Your task to perform on an android device: Open calendar and show me the third week of next month Image 0: 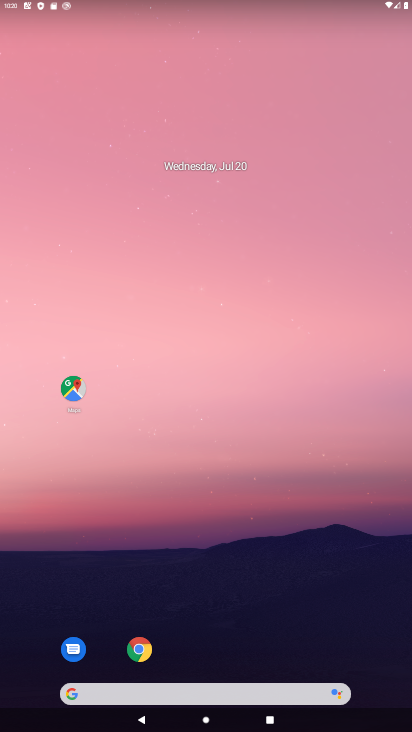
Step 0: drag from (221, 632) to (155, 174)
Your task to perform on an android device: Open calendar and show me the third week of next month Image 1: 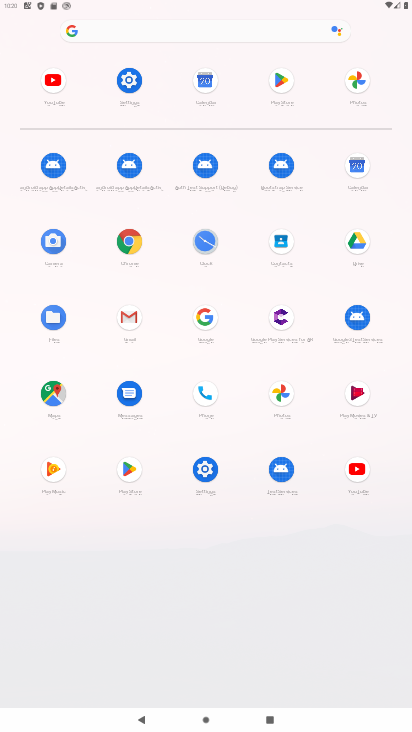
Step 1: click (222, 101)
Your task to perform on an android device: Open calendar and show me the third week of next month Image 2: 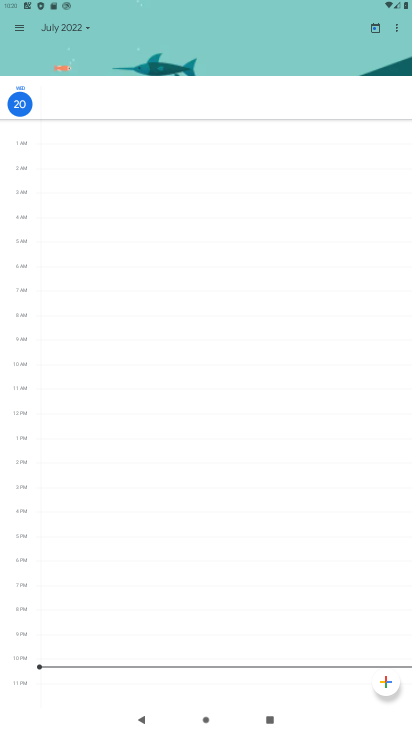
Step 2: task complete